Your task to perform on an android device: add a label to a message in the gmail app Image 0: 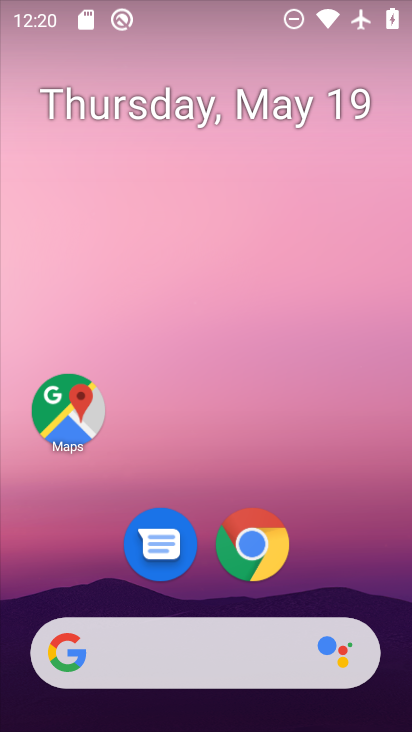
Step 0: drag from (364, 573) to (317, 161)
Your task to perform on an android device: add a label to a message in the gmail app Image 1: 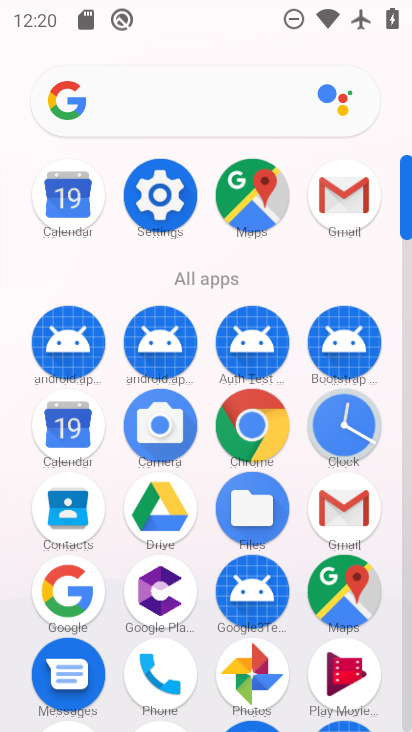
Step 1: click (338, 226)
Your task to perform on an android device: add a label to a message in the gmail app Image 2: 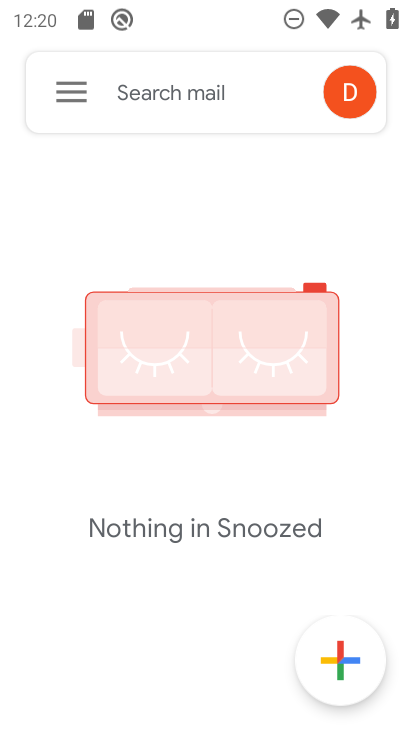
Step 2: click (76, 83)
Your task to perform on an android device: add a label to a message in the gmail app Image 3: 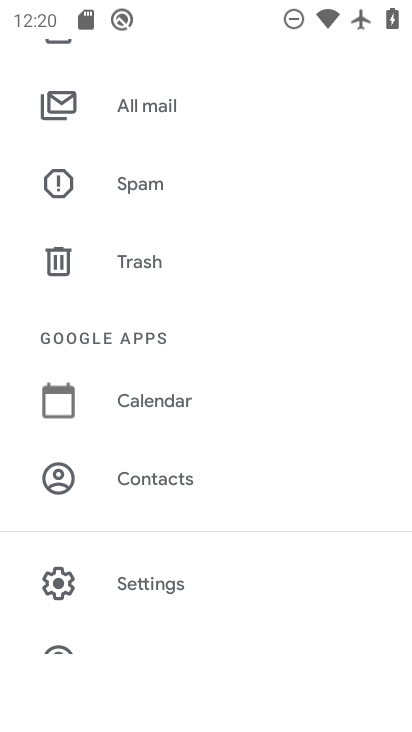
Step 3: drag from (176, 567) to (147, 261)
Your task to perform on an android device: add a label to a message in the gmail app Image 4: 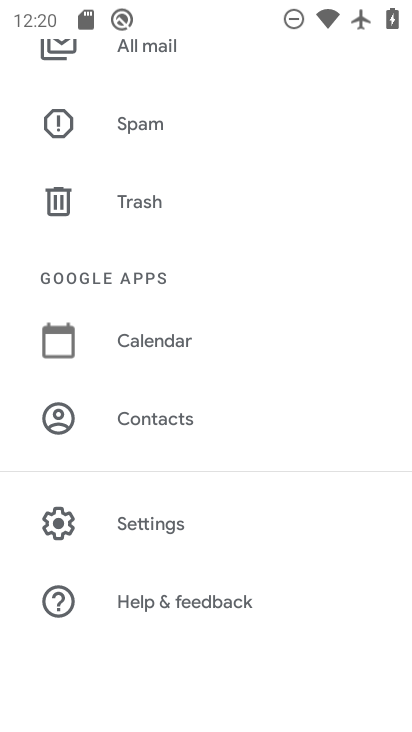
Step 4: click (141, 531)
Your task to perform on an android device: add a label to a message in the gmail app Image 5: 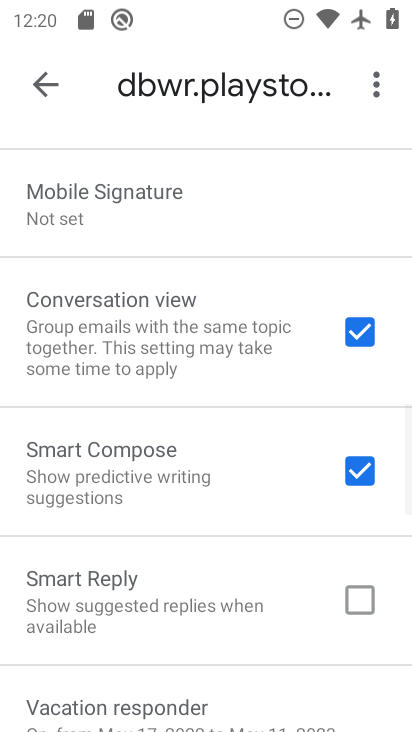
Step 5: click (32, 73)
Your task to perform on an android device: add a label to a message in the gmail app Image 6: 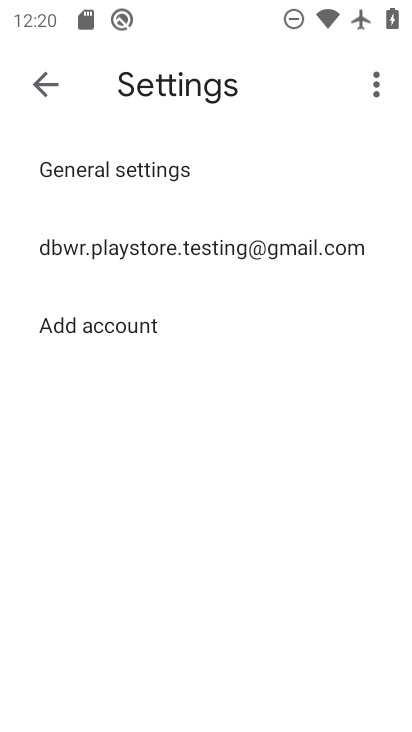
Step 6: click (32, 73)
Your task to perform on an android device: add a label to a message in the gmail app Image 7: 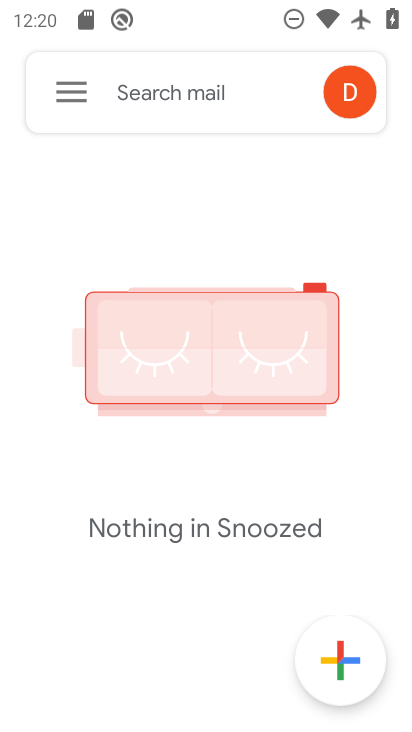
Step 7: click (45, 92)
Your task to perform on an android device: add a label to a message in the gmail app Image 8: 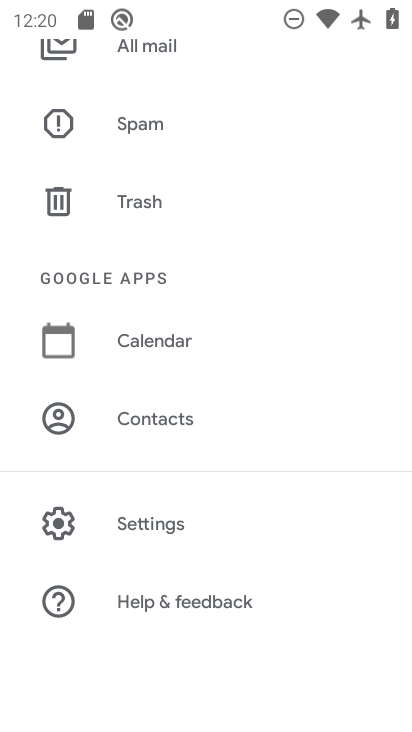
Step 8: drag from (97, 250) to (161, 659)
Your task to perform on an android device: add a label to a message in the gmail app Image 9: 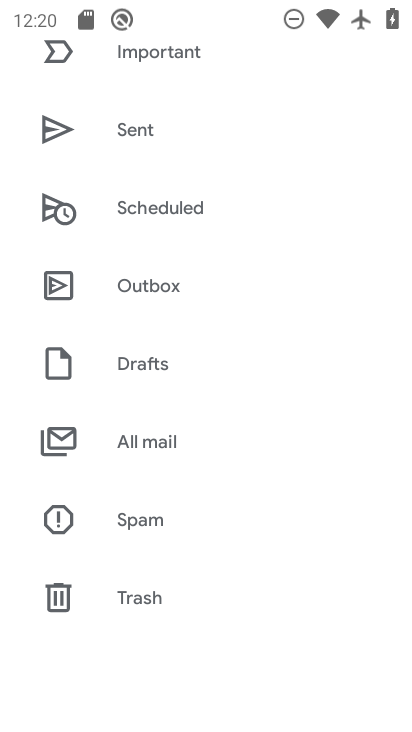
Step 9: drag from (137, 109) to (123, 165)
Your task to perform on an android device: add a label to a message in the gmail app Image 10: 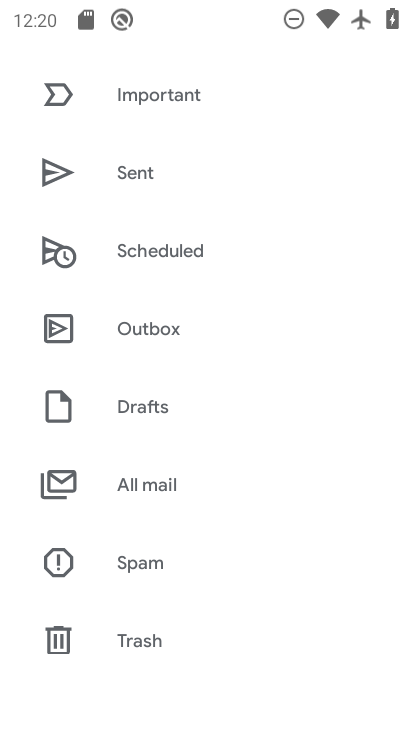
Step 10: click (105, 485)
Your task to perform on an android device: add a label to a message in the gmail app Image 11: 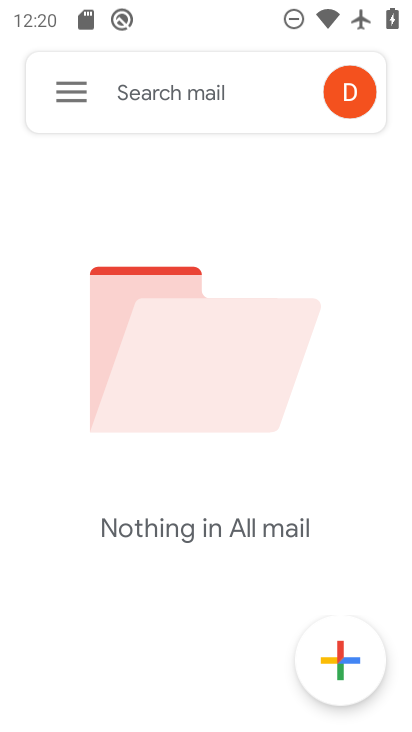
Step 11: task complete